Your task to perform on an android device: Go to network settings Image 0: 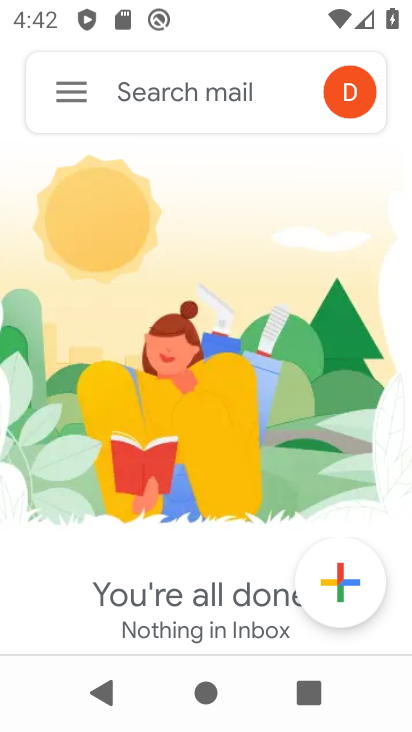
Step 0: press home button
Your task to perform on an android device: Go to network settings Image 1: 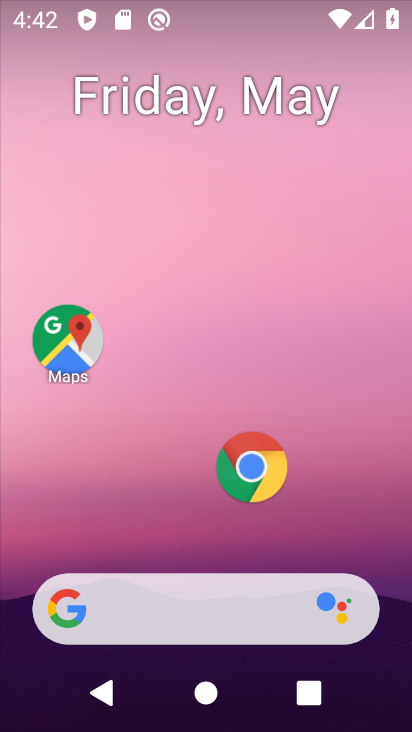
Step 1: drag from (258, 559) to (126, 0)
Your task to perform on an android device: Go to network settings Image 2: 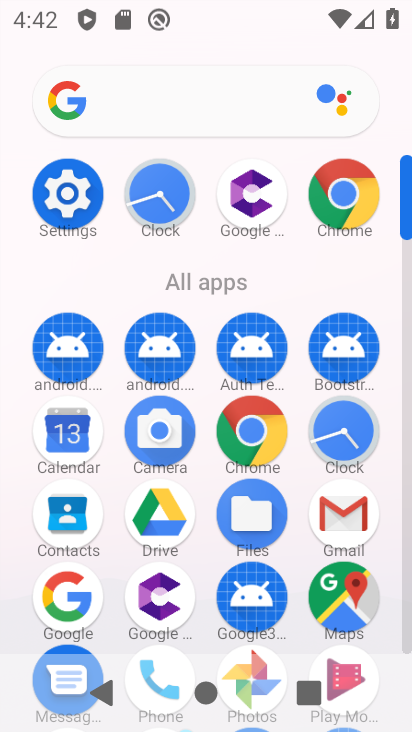
Step 2: click (89, 190)
Your task to perform on an android device: Go to network settings Image 3: 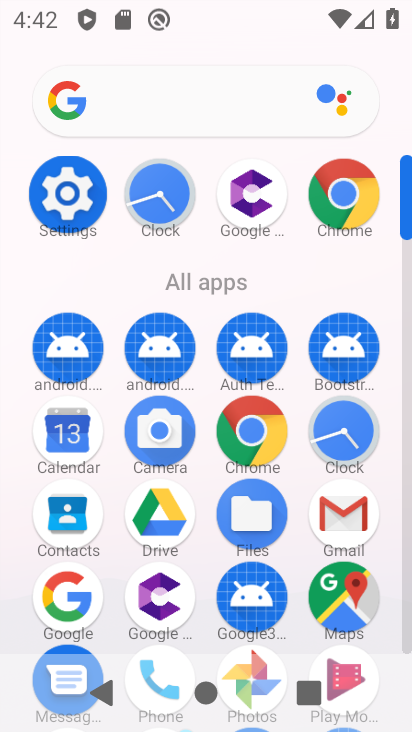
Step 3: click (89, 190)
Your task to perform on an android device: Go to network settings Image 4: 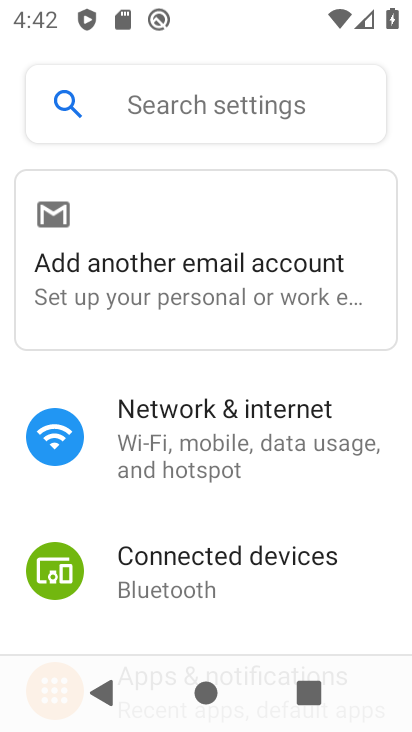
Step 4: click (227, 426)
Your task to perform on an android device: Go to network settings Image 5: 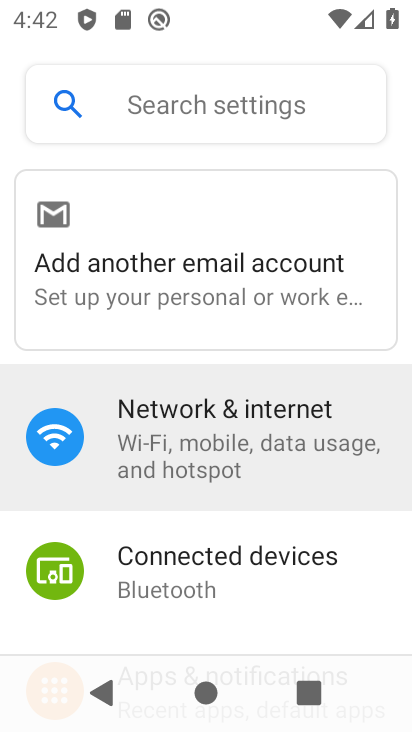
Step 5: click (227, 426)
Your task to perform on an android device: Go to network settings Image 6: 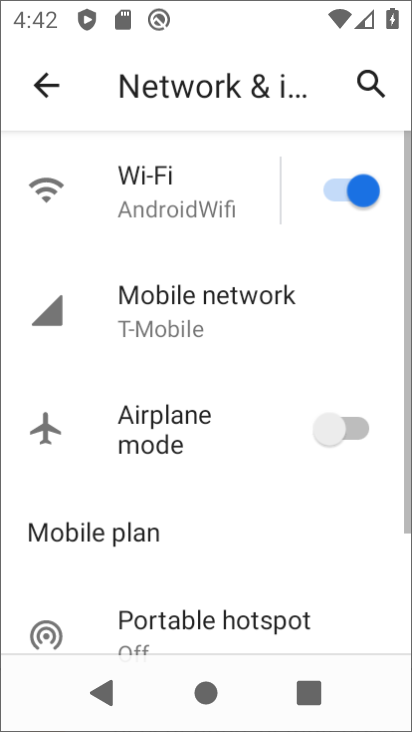
Step 6: click (227, 429)
Your task to perform on an android device: Go to network settings Image 7: 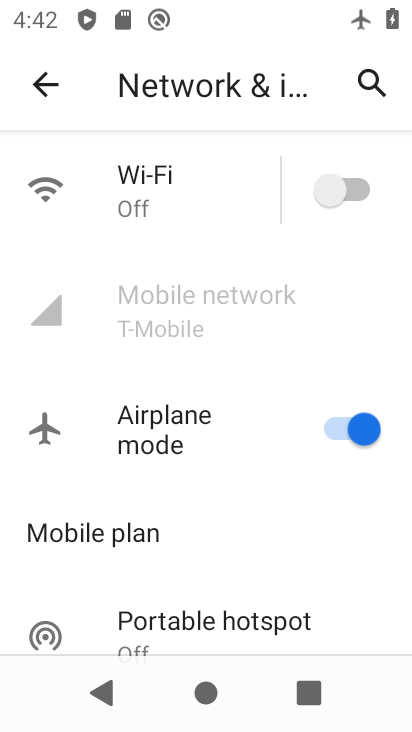
Step 7: task complete